Your task to perform on an android device: see tabs open on other devices in the chrome app Image 0: 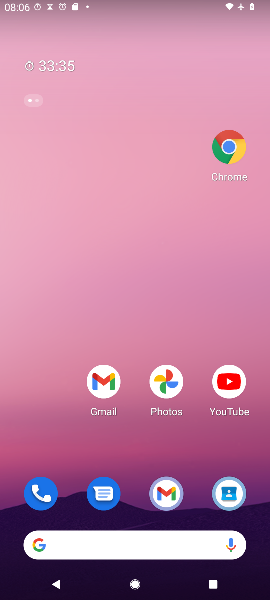
Step 0: press home button
Your task to perform on an android device: see tabs open on other devices in the chrome app Image 1: 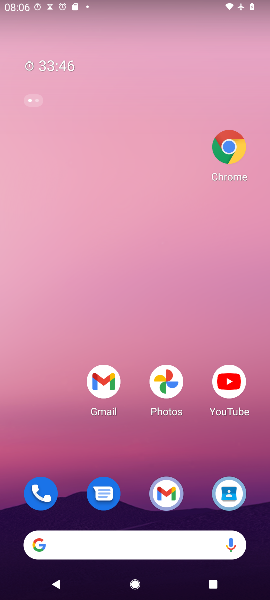
Step 1: click (234, 149)
Your task to perform on an android device: see tabs open on other devices in the chrome app Image 2: 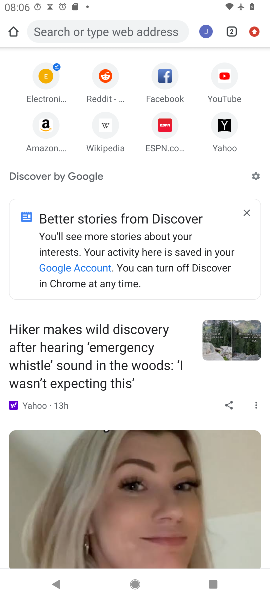
Step 2: task complete